Your task to perform on an android device: check out phone information Image 0: 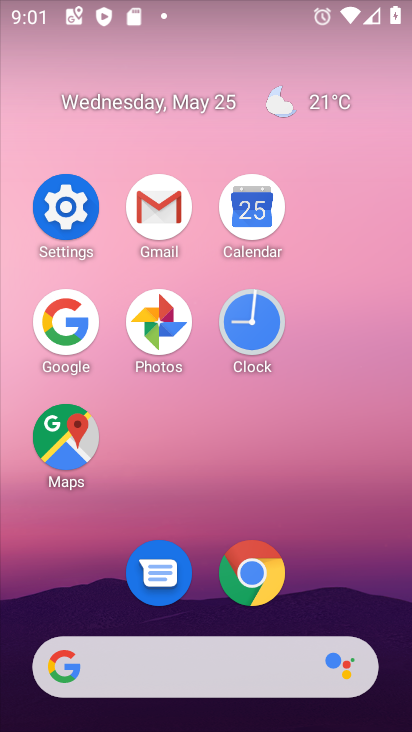
Step 0: click (80, 237)
Your task to perform on an android device: check out phone information Image 1: 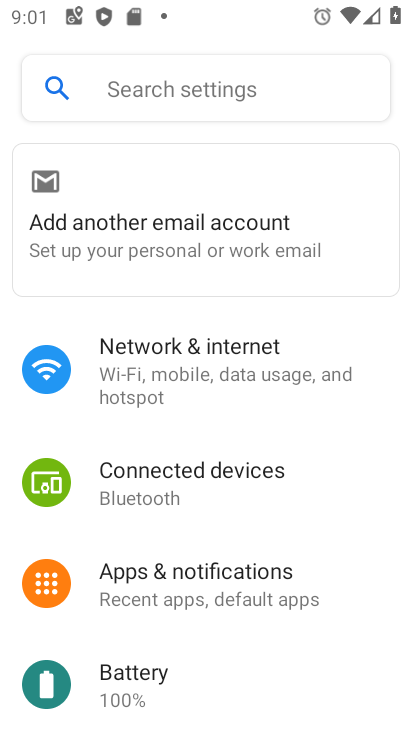
Step 1: drag from (277, 648) to (263, 299)
Your task to perform on an android device: check out phone information Image 2: 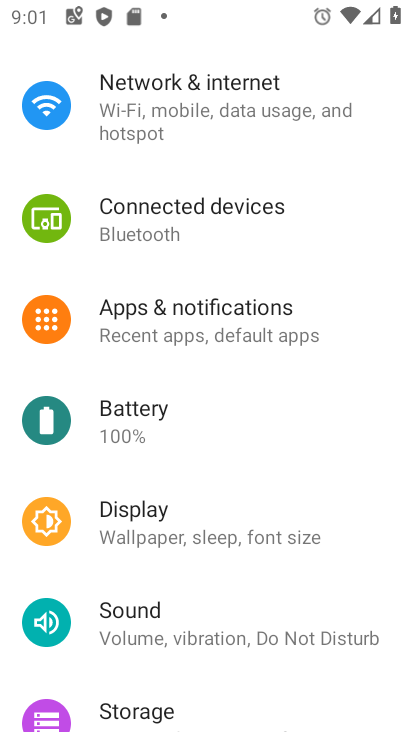
Step 2: drag from (267, 728) to (241, 356)
Your task to perform on an android device: check out phone information Image 3: 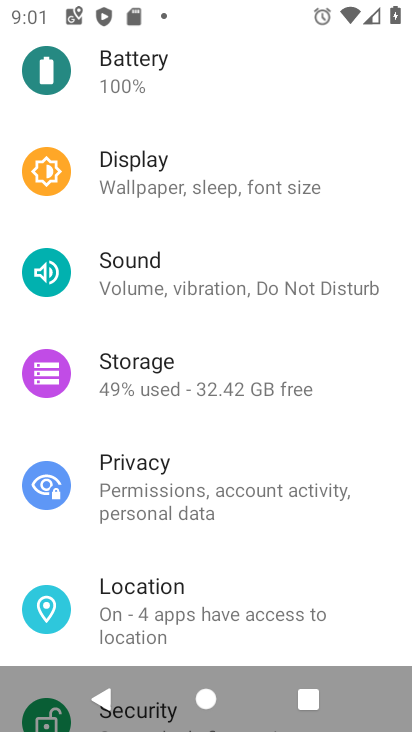
Step 3: drag from (268, 619) to (257, 273)
Your task to perform on an android device: check out phone information Image 4: 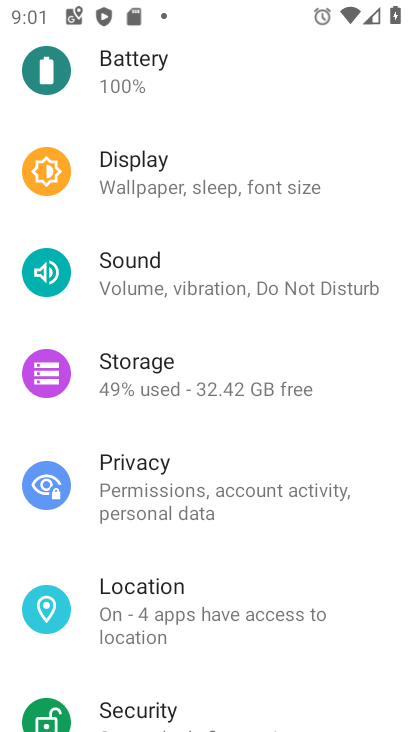
Step 4: drag from (239, 627) to (258, 336)
Your task to perform on an android device: check out phone information Image 5: 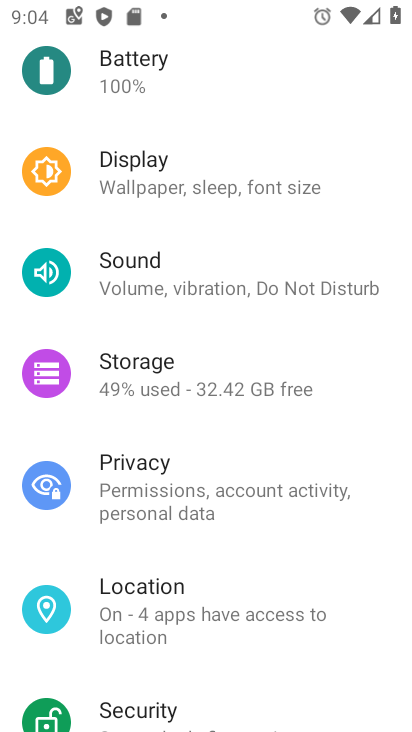
Step 5: drag from (309, 574) to (253, 231)
Your task to perform on an android device: check out phone information Image 6: 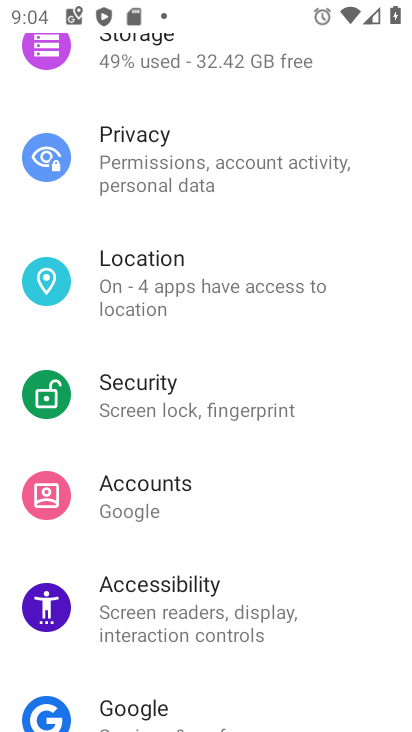
Step 6: drag from (287, 523) to (258, 222)
Your task to perform on an android device: check out phone information Image 7: 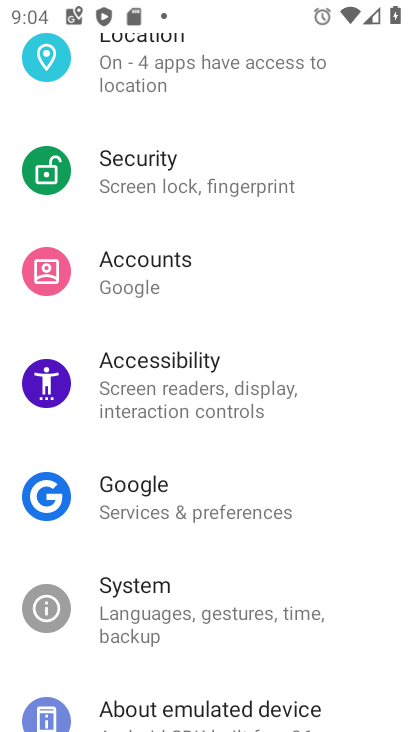
Step 7: drag from (230, 569) to (239, 271)
Your task to perform on an android device: check out phone information Image 8: 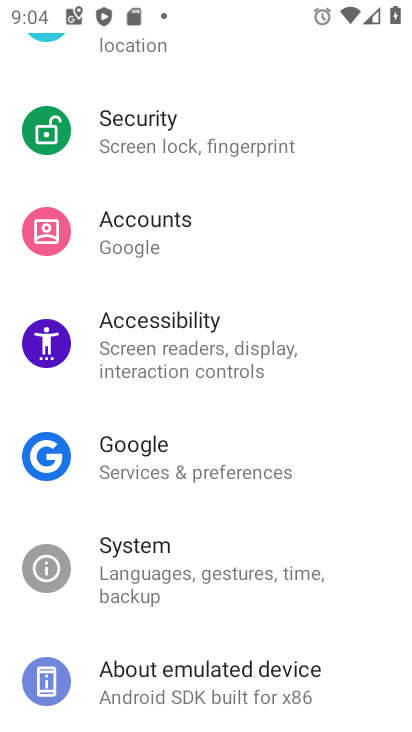
Step 8: drag from (251, 185) to (278, 593)
Your task to perform on an android device: check out phone information Image 9: 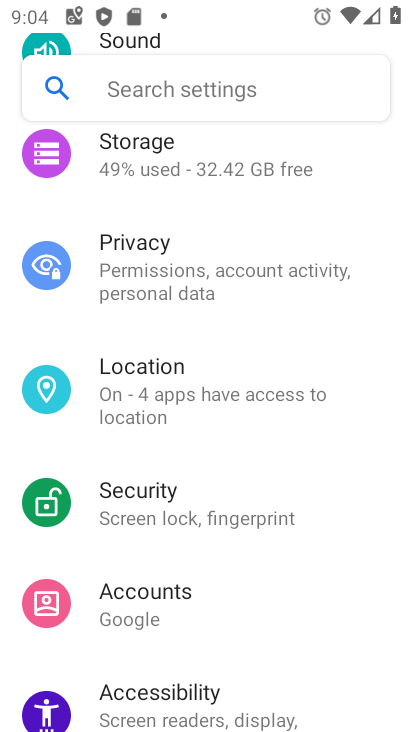
Step 9: drag from (339, 251) to (335, 305)
Your task to perform on an android device: check out phone information Image 10: 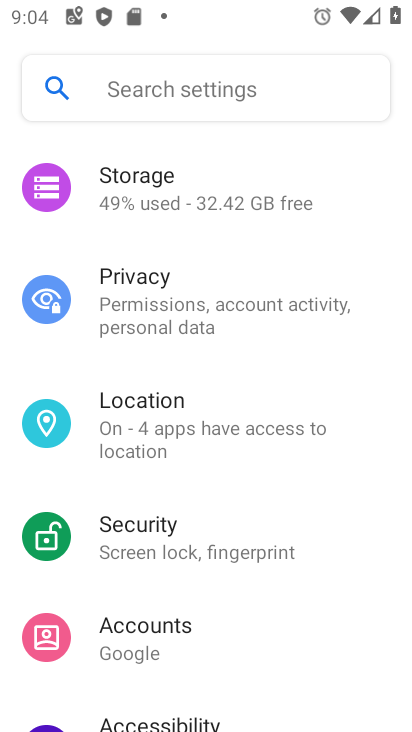
Step 10: drag from (232, 631) to (255, 229)
Your task to perform on an android device: check out phone information Image 11: 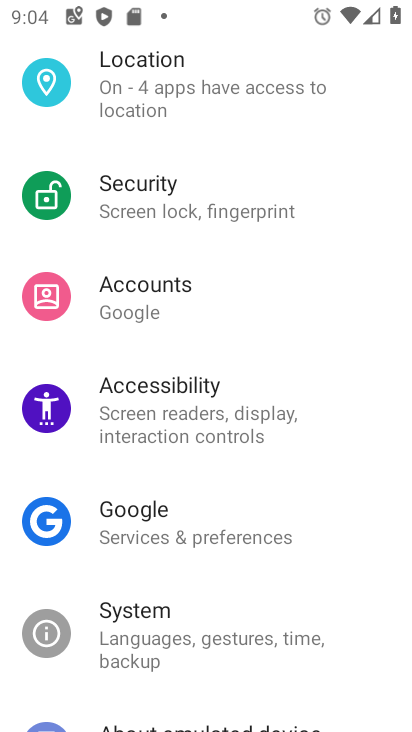
Step 11: drag from (306, 576) to (290, 248)
Your task to perform on an android device: check out phone information Image 12: 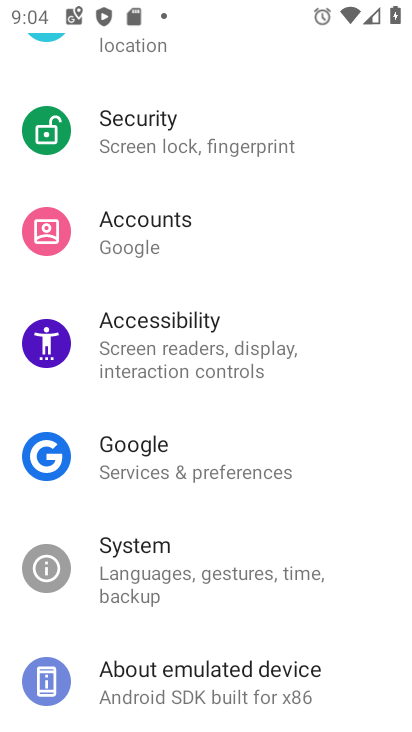
Step 12: click (222, 696)
Your task to perform on an android device: check out phone information Image 13: 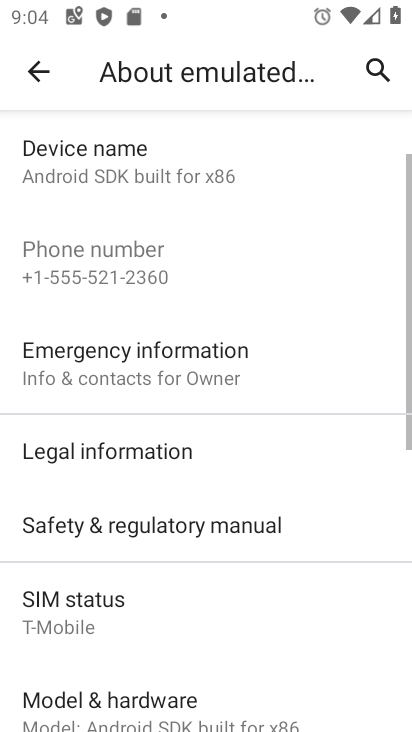
Step 13: drag from (226, 670) to (207, 349)
Your task to perform on an android device: check out phone information Image 14: 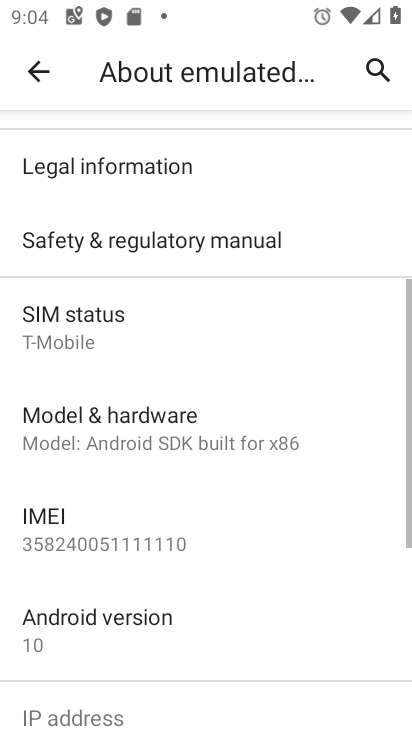
Step 14: click (224, 434)
Your task to perform on an android device: check out phone information Image 15: 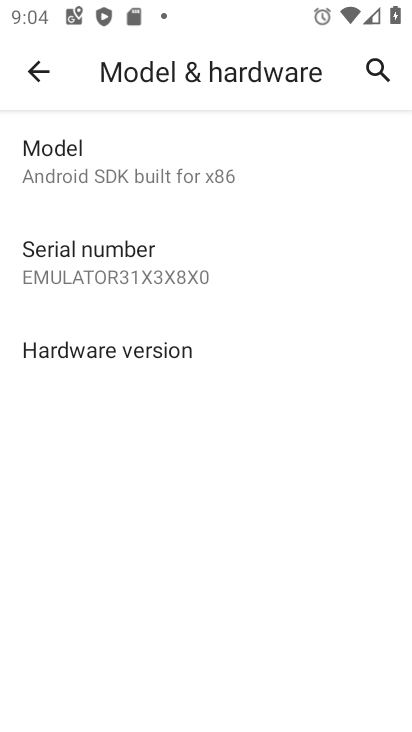
Step 15: task complete